Your task to perform on an android device: Turn on the flashlight Image 0: 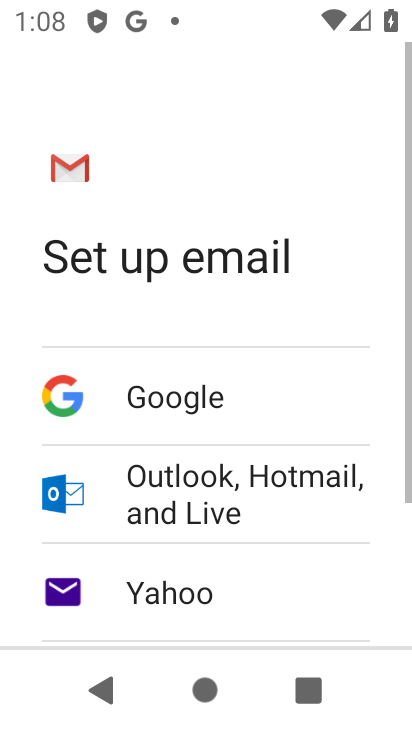
Step 0: press home button
Your task to perform on an android device: Turn on the flashlight Image 1: 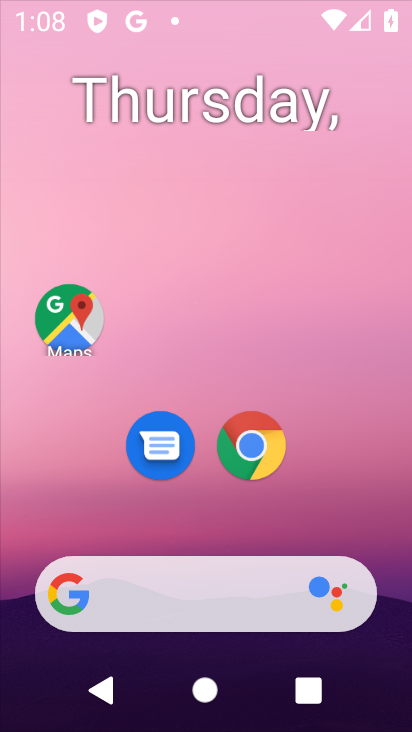
Step 1: drag from (214, 593) to (248, 129)
Your task to perform on an android device: Turn on the flashlight Image 2: 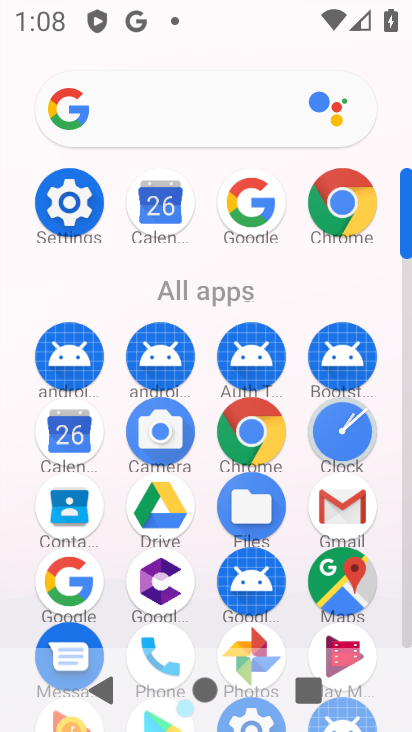
Step 2: click (79, 208)
Your task to perform on an android device: Turn on the flashlight Image 3: 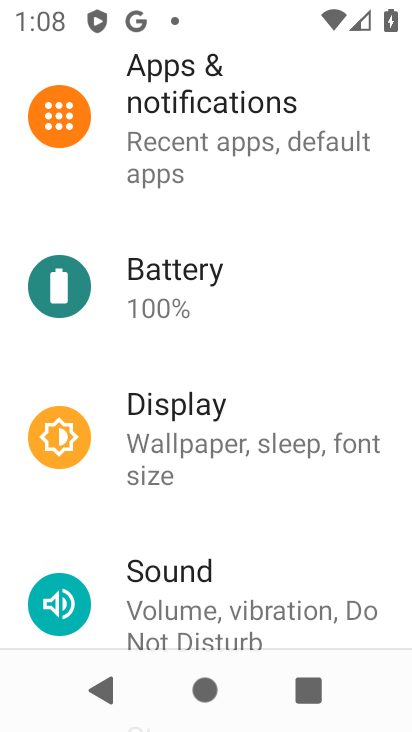
Step 3: drag from (181, 198) to (304, 702)
Your task to perform on an android device: Turn on the flashlight Image 4: 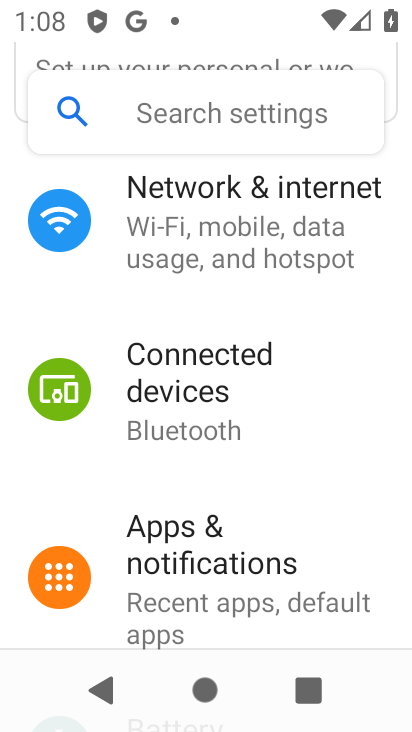
Step 4: click (163, 109)
Your task to perform on an android device: Turn on the flashlight Image 5: 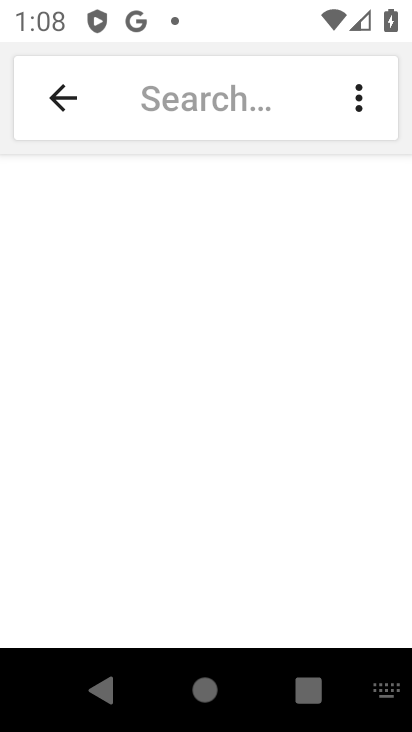
Step 5: type "flashlight"
Your task to perform on an android device: Turn on the flashlight Image 6: 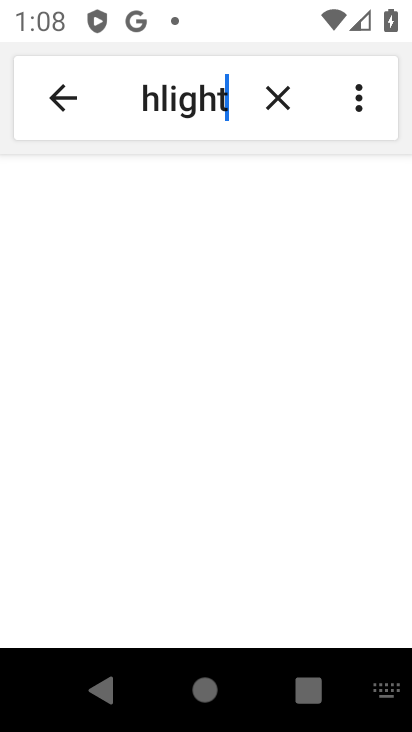
Step 6: type ""
Your task to perform on an android device: Turn on the flashlight Image 7: 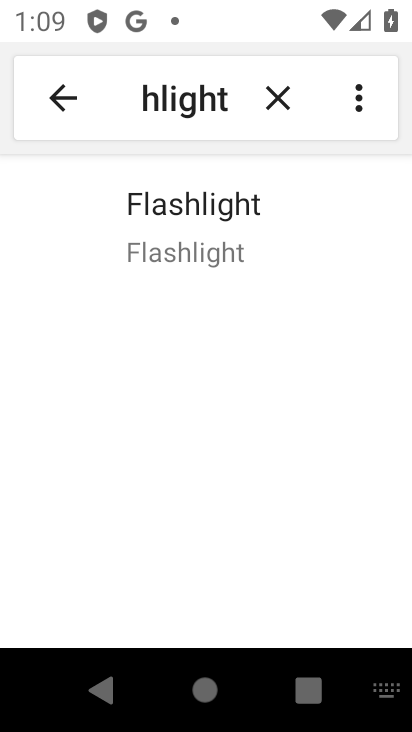
Step 7: click (231, 240)
Your task to perform on an android device: Turn on the flashlight Image 8: 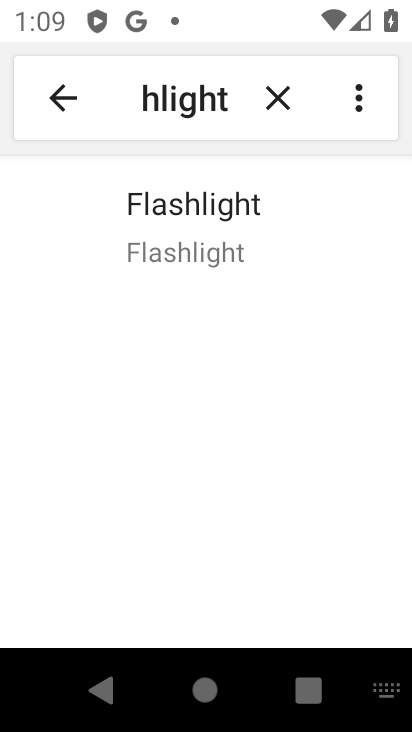
Step 8: task complete